Your task to perform on an android device: turn on notifications settings in the gmail app Image 0: 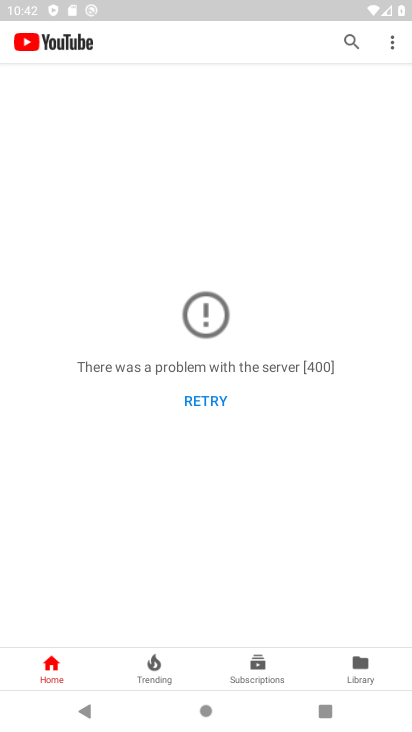
Step 0: press home button
Your task to perform on an android device: turn on notifications settings in the gmail app Image 1: 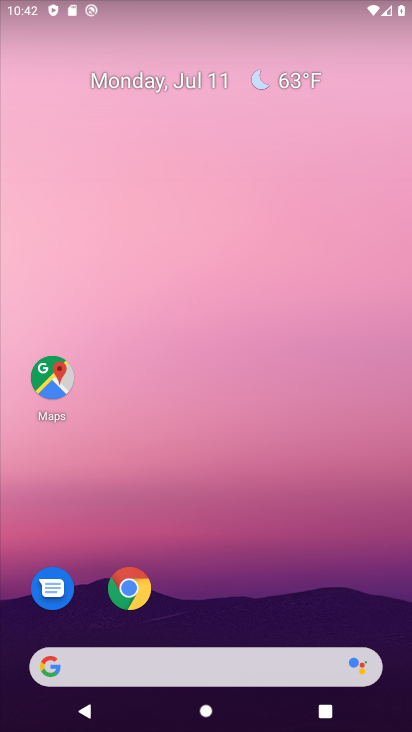
Step 1: drag from (262, 701) to (252, 107)
Your task to perform on an android device: turn on notifications settings in the gmail app Image 2: 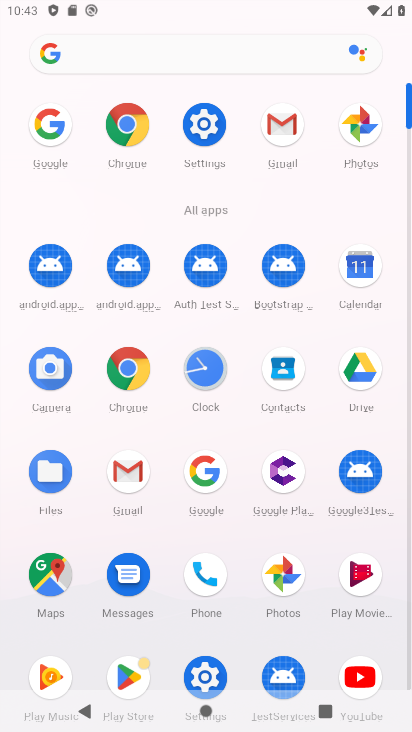
Step 2: click (124, 475)
Your task to perform on an android device: turn on notifications settings in the gmail app Image 3: 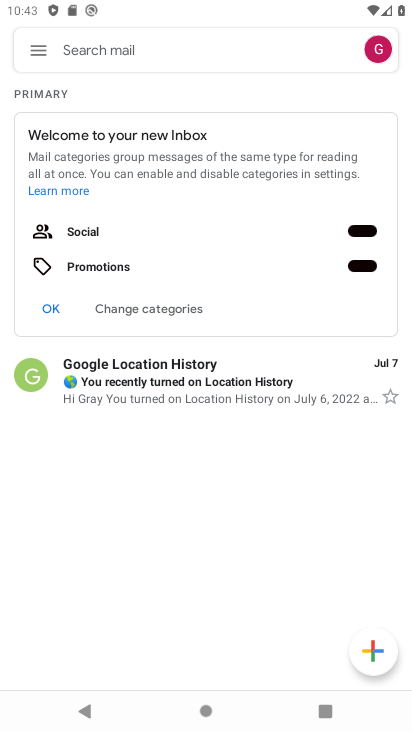
Step 3: click (36, 50)
Your task to perform on an android device: turn on notifications settings in the gmail app Image 4: 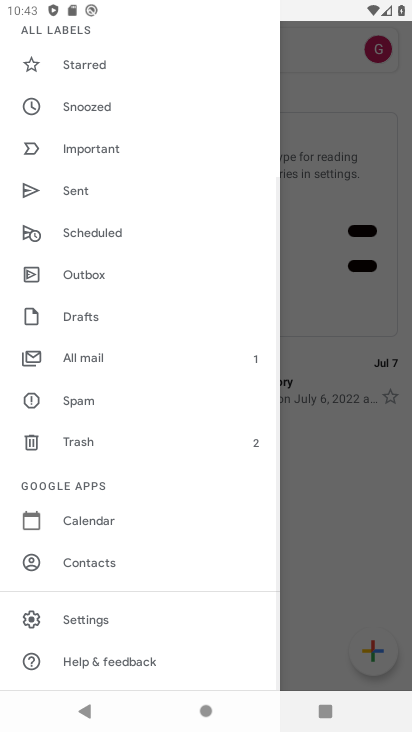
Step 4: click (88, 620)
Your task to perform on an android device: turn on notifications settings in the gmail app Image 5: 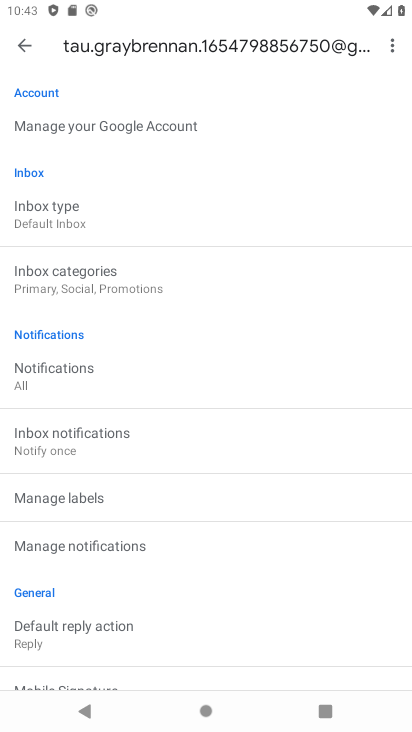
Step 5: task complete